Your task to perform on an android device: search for starred emails in the gmail app Image 0: 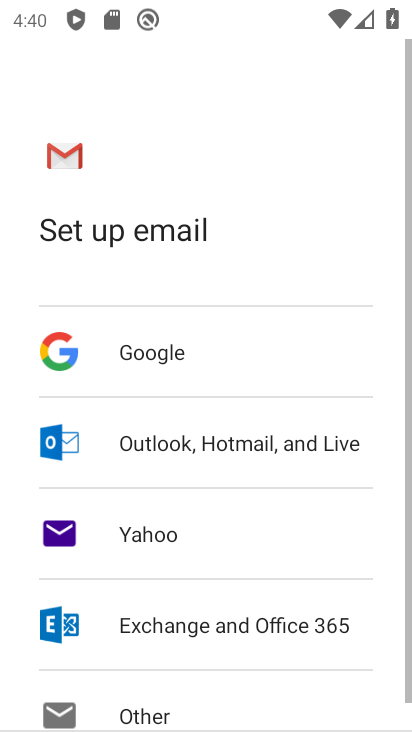
Step 0: press home button
Your task to perform on an android device: search for starred emails in the gmail app Image 1: 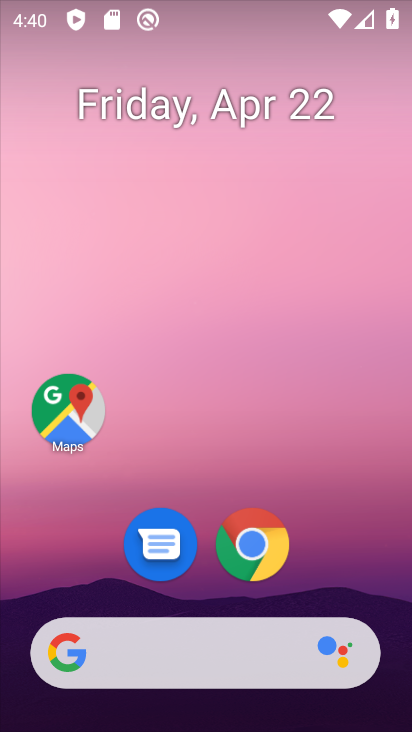
Step 1: drag from (164, 614) to (179, 291)
Your task to perform on an android device: search for starred emails in the gmail app Image 2: 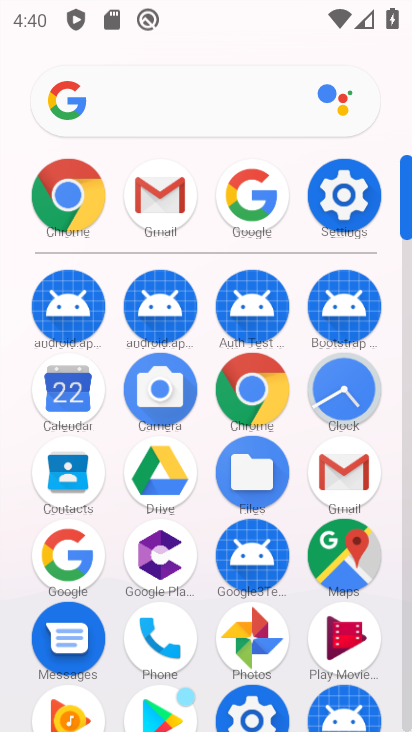
Step 2: click (172, 185)
Your task to perform on an android device: search for starred emails in the gmail app Image 3: 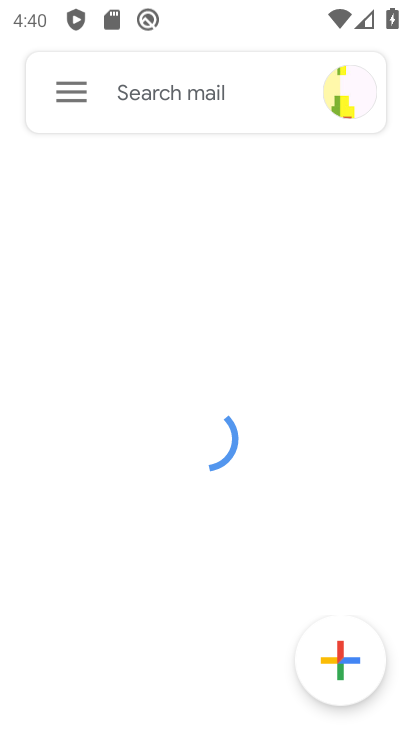
Step 3: click (88, 91)
Your task to perform on an android device: search for starred emails in the gmail app Image 4: 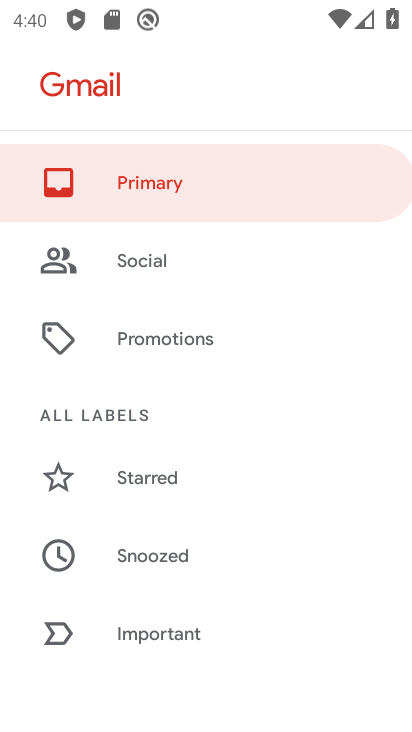
Step 4: click (154, 477)
Your task to perform on an android device: search for starred emails in the gmail app Image 5: 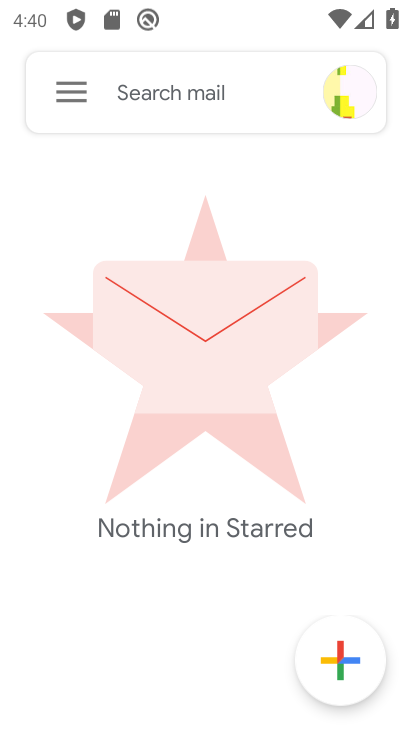
Step 5: task complete